Your task to perform on an android device: turn on showing notifications on the lock screen Image 0: 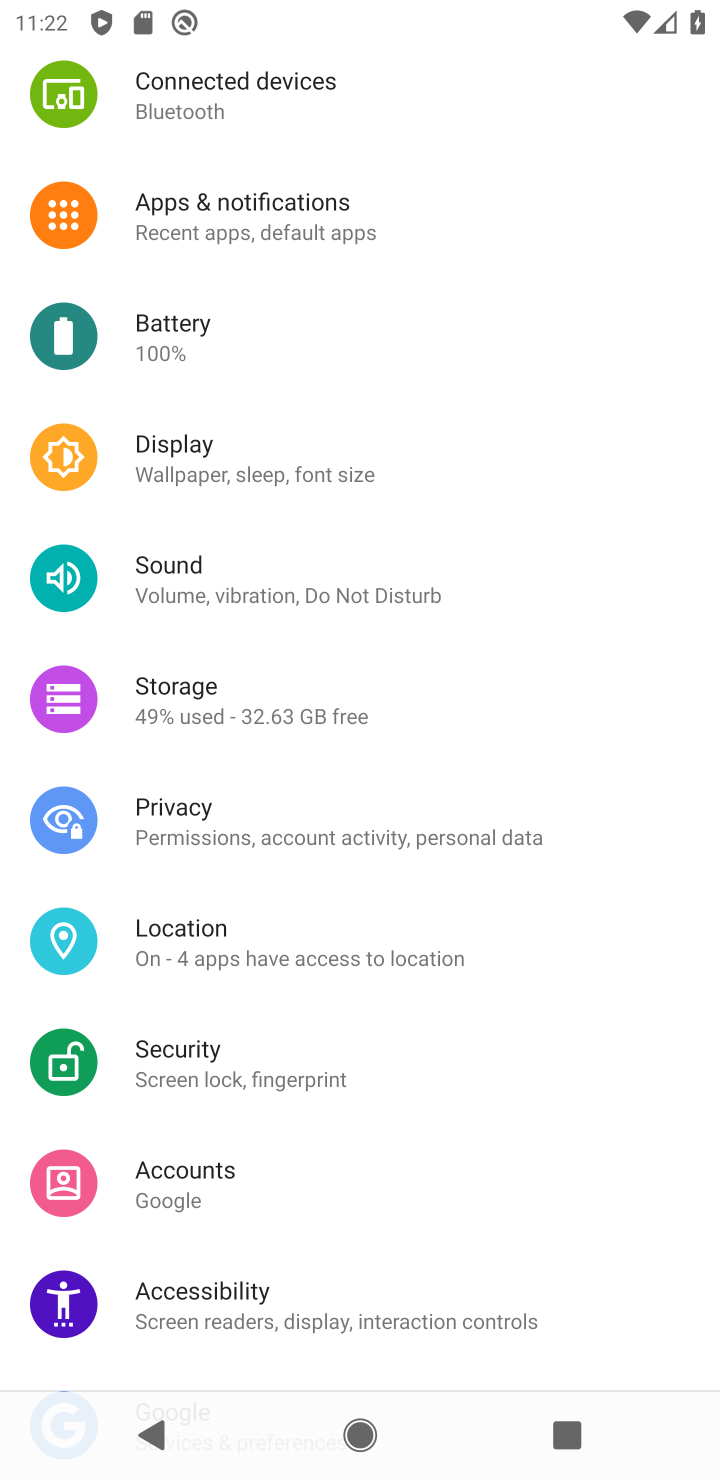
Step 0: press home button
Your task to perform on an android device: turn on showing notifications on the lock screen Image 1: 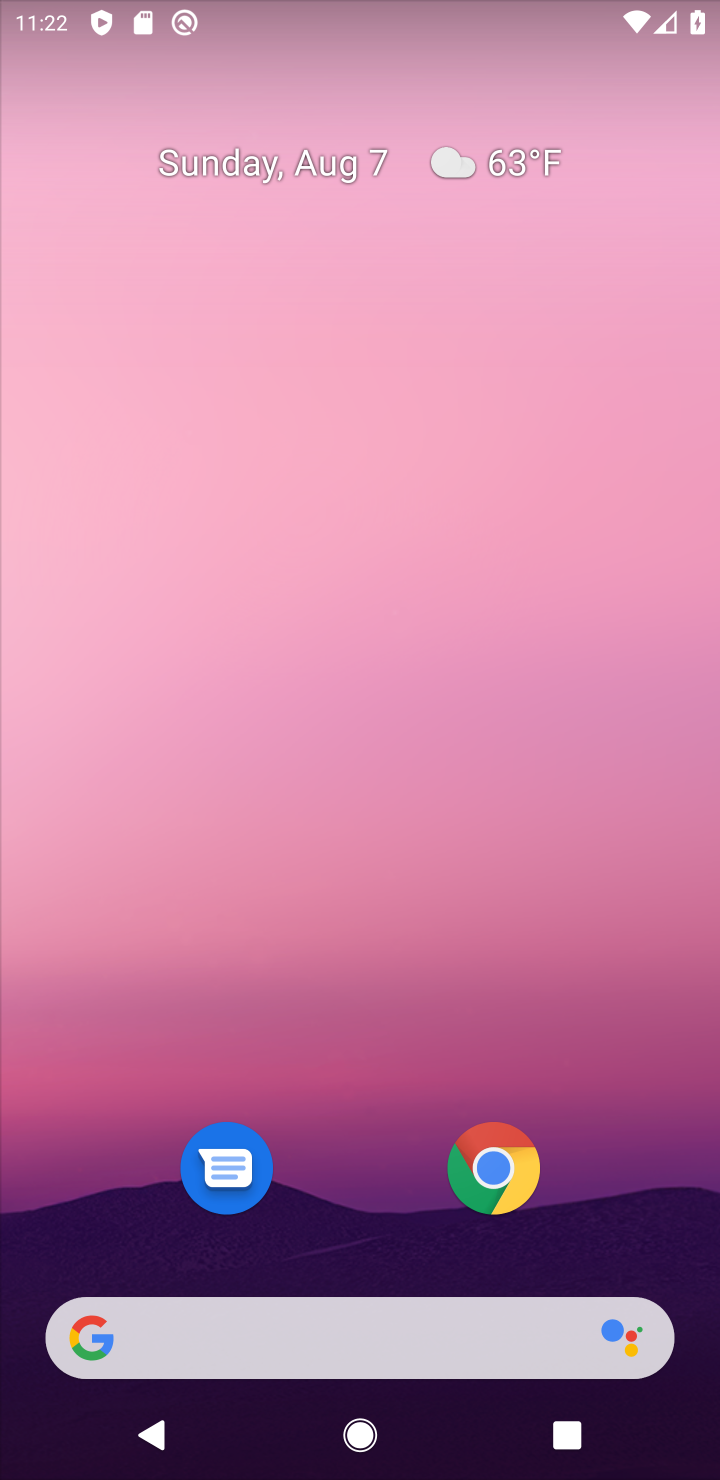
Step 1: drag from (320, 1116) to (415, 6)
Your task to perform on an android device: turn on showing notifications on the lock screen Image 2: 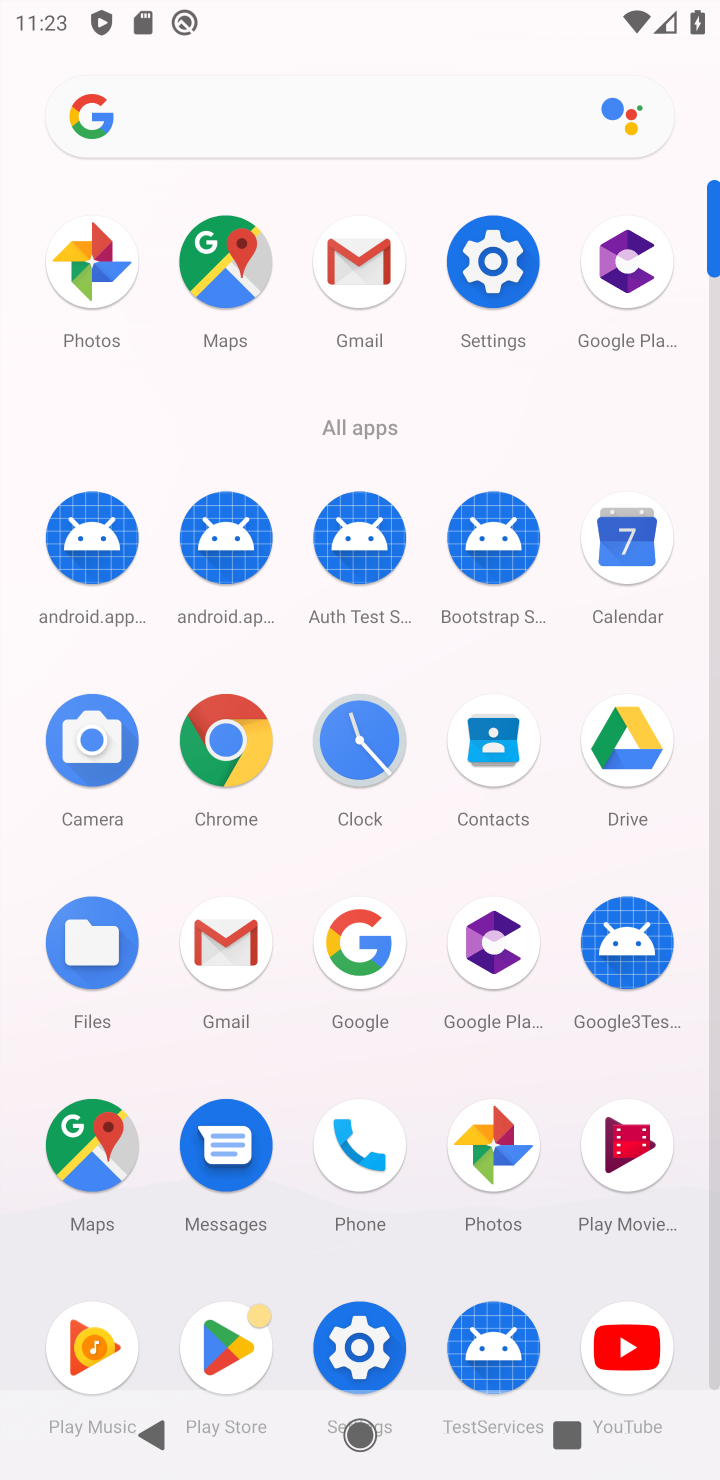
Step 2: click (504, 273)
Your task to perform on an android device: turn on showing notifications on the lock screen Image 3: 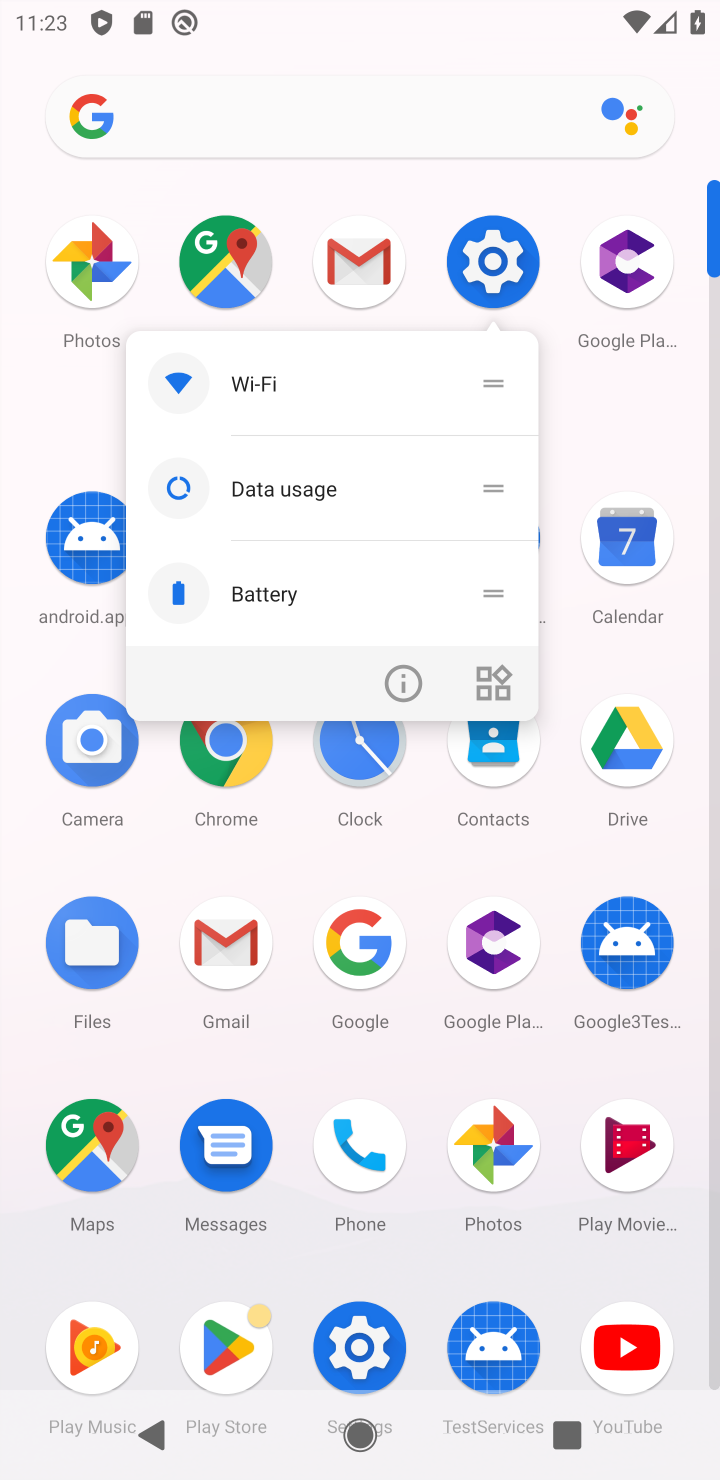
Step 3: click (504, 273)
Your task to perform on an android device: turn on showing notifications on the lock screen Image 4: 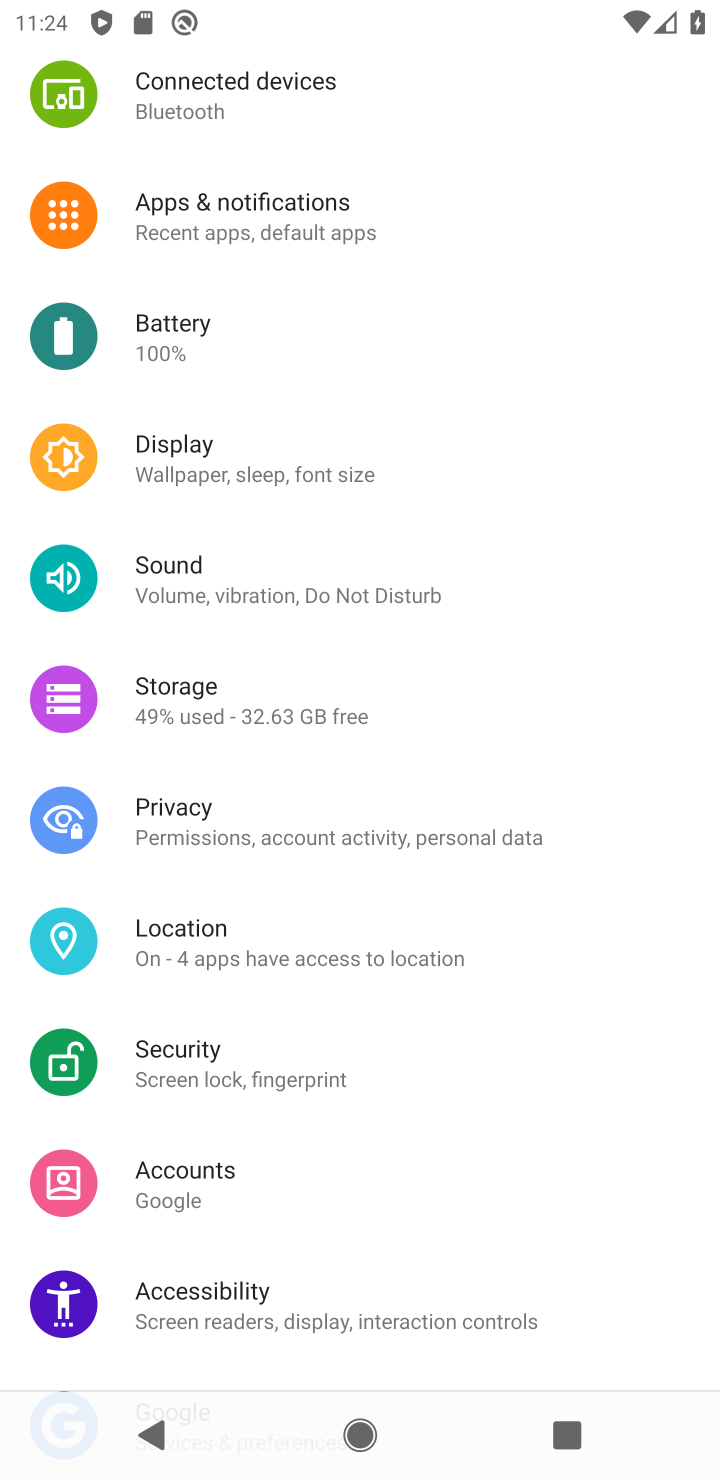
Step 4: drag from (618, 352) to (602, 1046)
Your task to perform on an android device: turn on showing notifications on the lock screen Image 5: 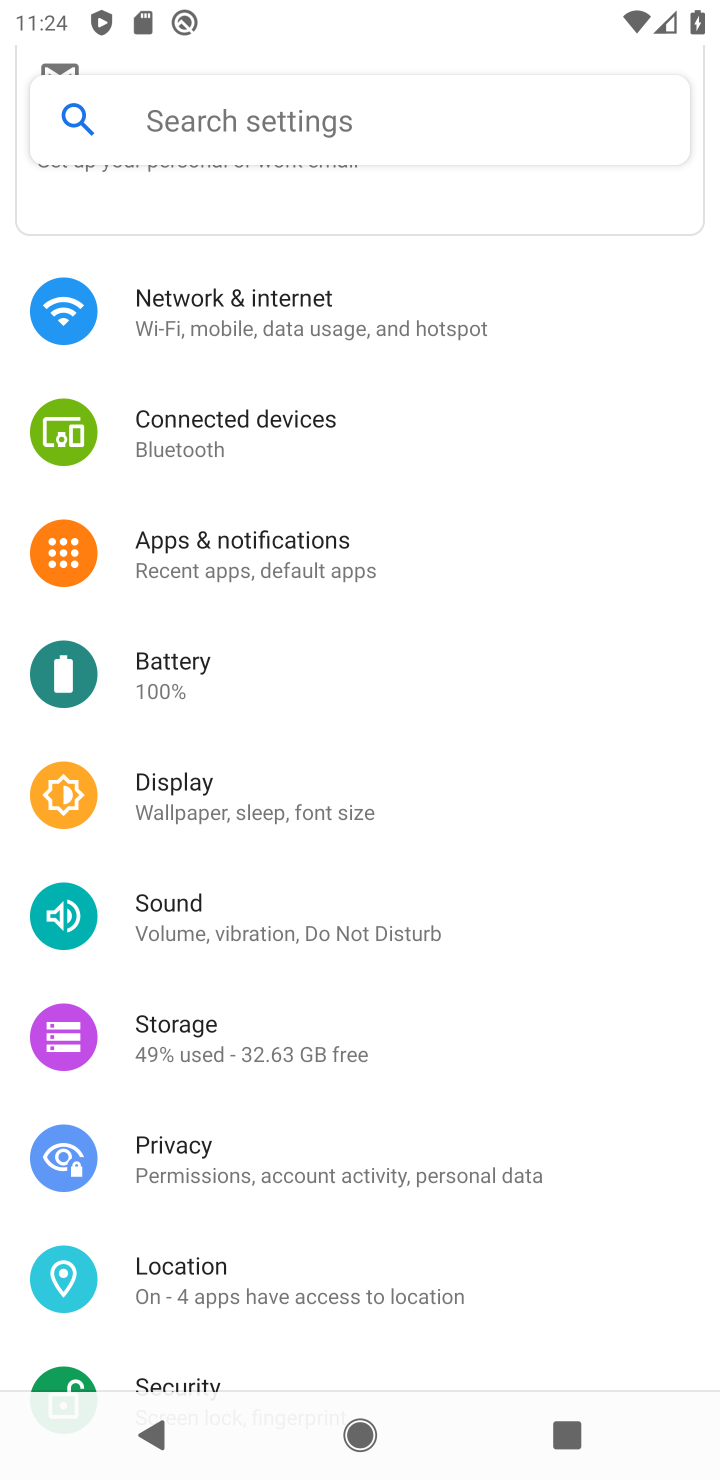
Step 5: click (209, 549)
Your task to perform on an android device: turn on showing notifications on the lock screen Image 6: 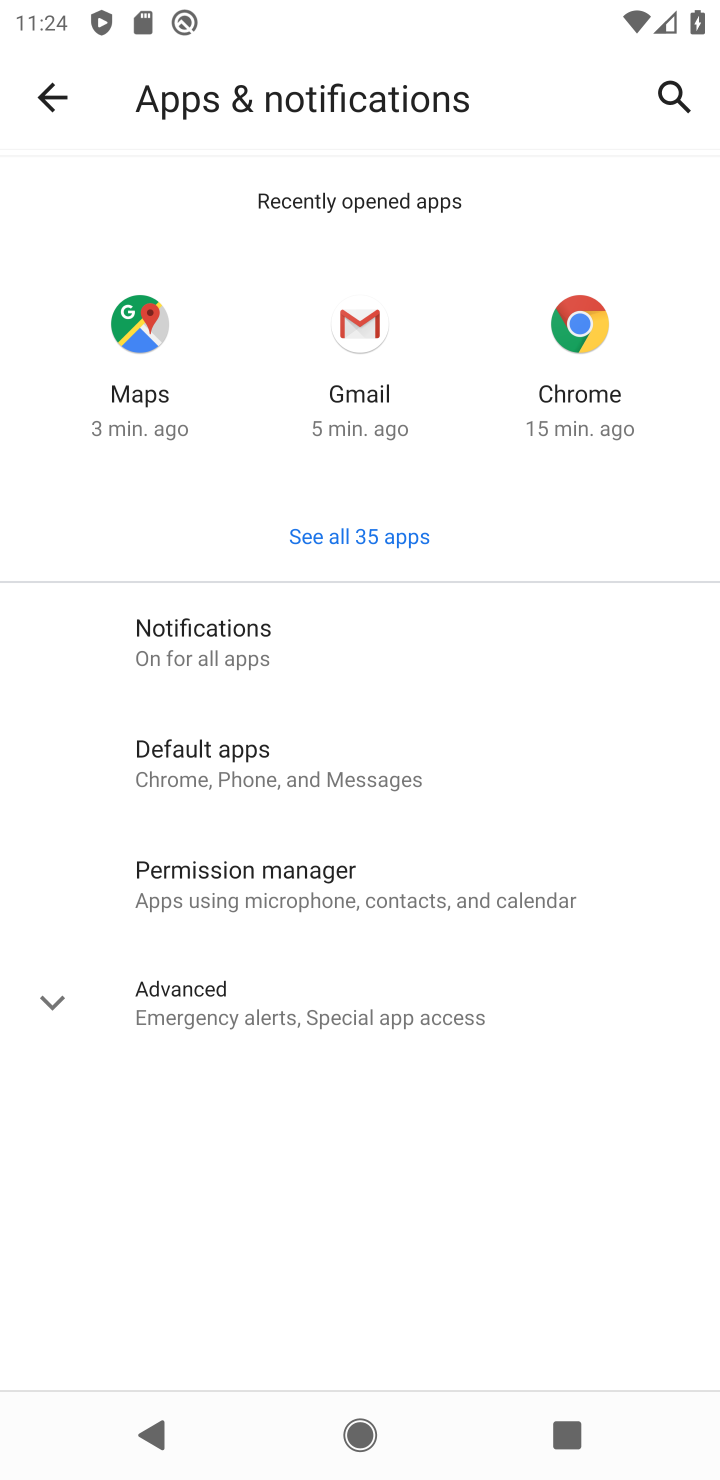
Step 6: click (205, 641)
Your task to perform on an android device: turn on showing notifications on the lock screen Image 7: 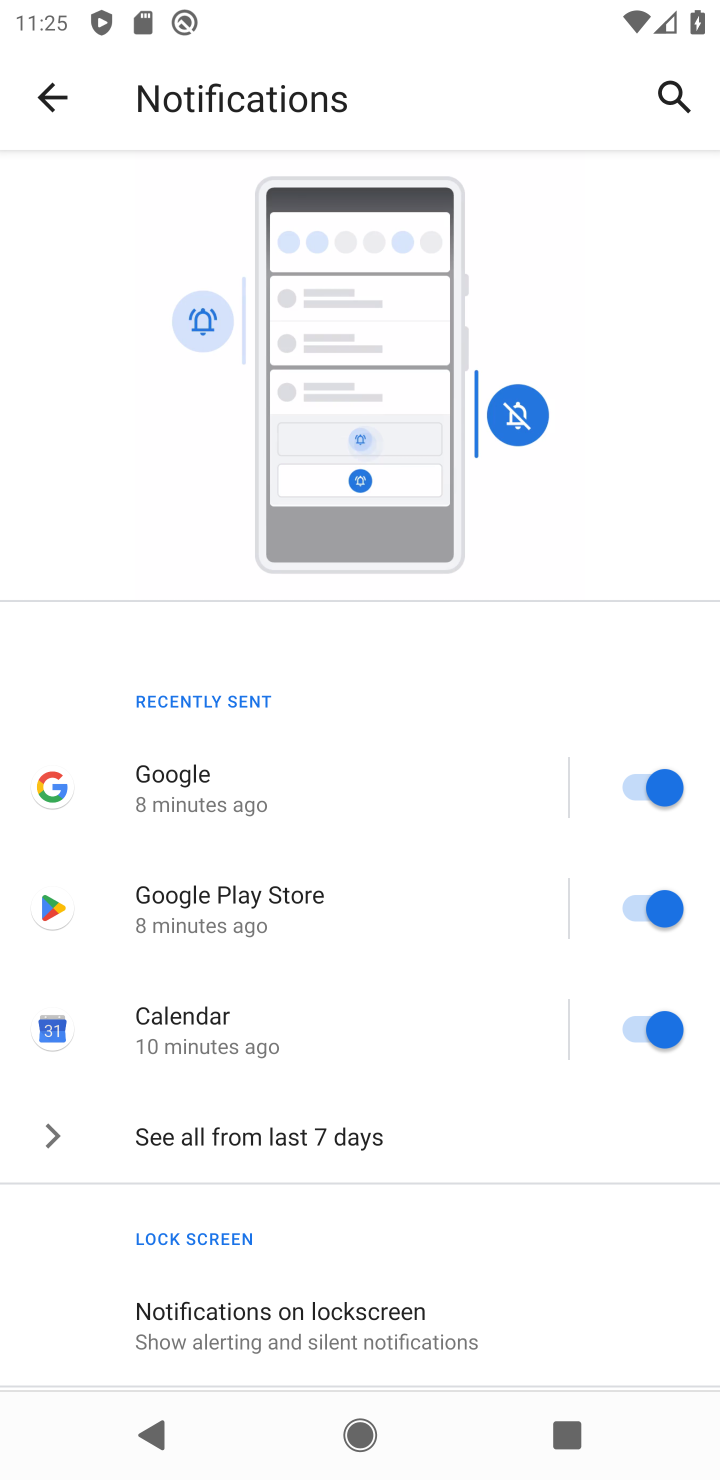
Step 7: click (303, 1329)
Your task to perform on an android device: turn on showing notifications on the lock screen Image 8: 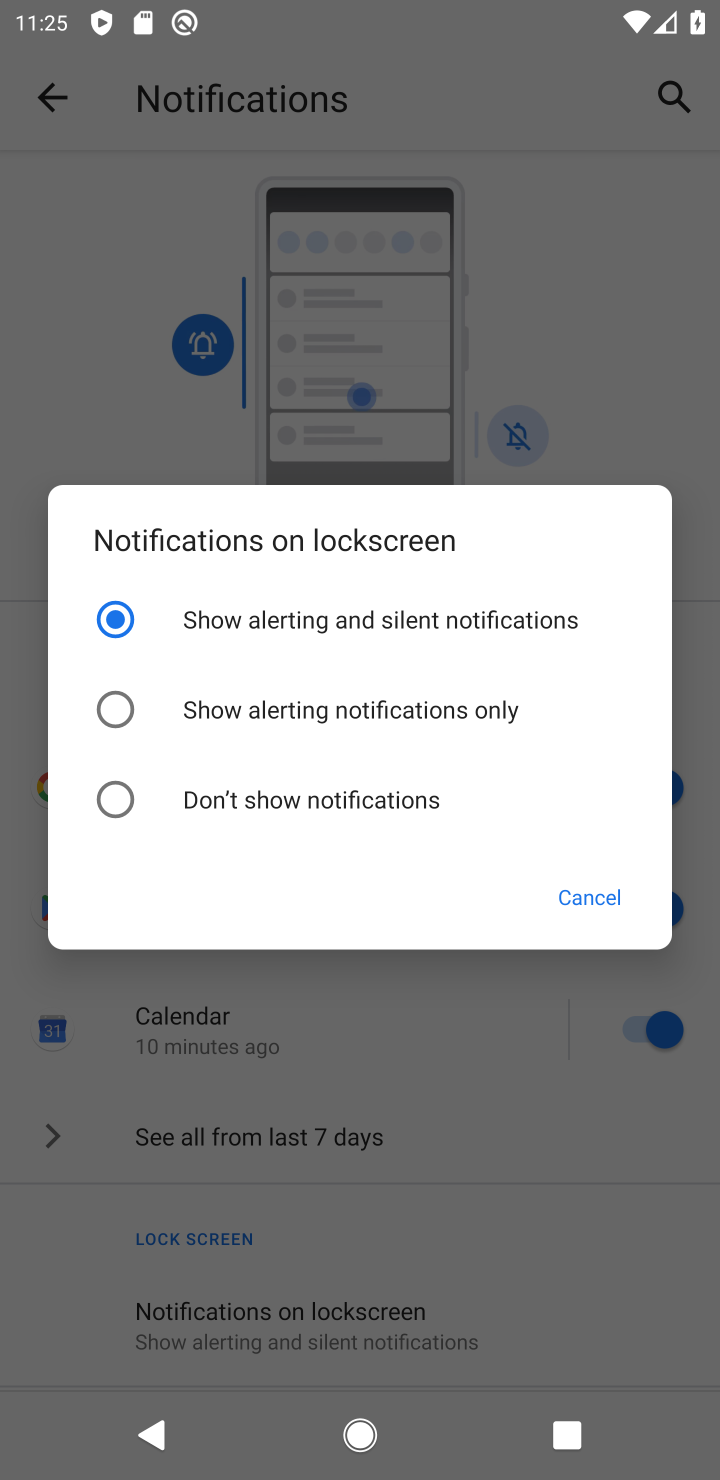
Step 8: task complete